Your task to perform on an android device: Go to sound settings Image 0: 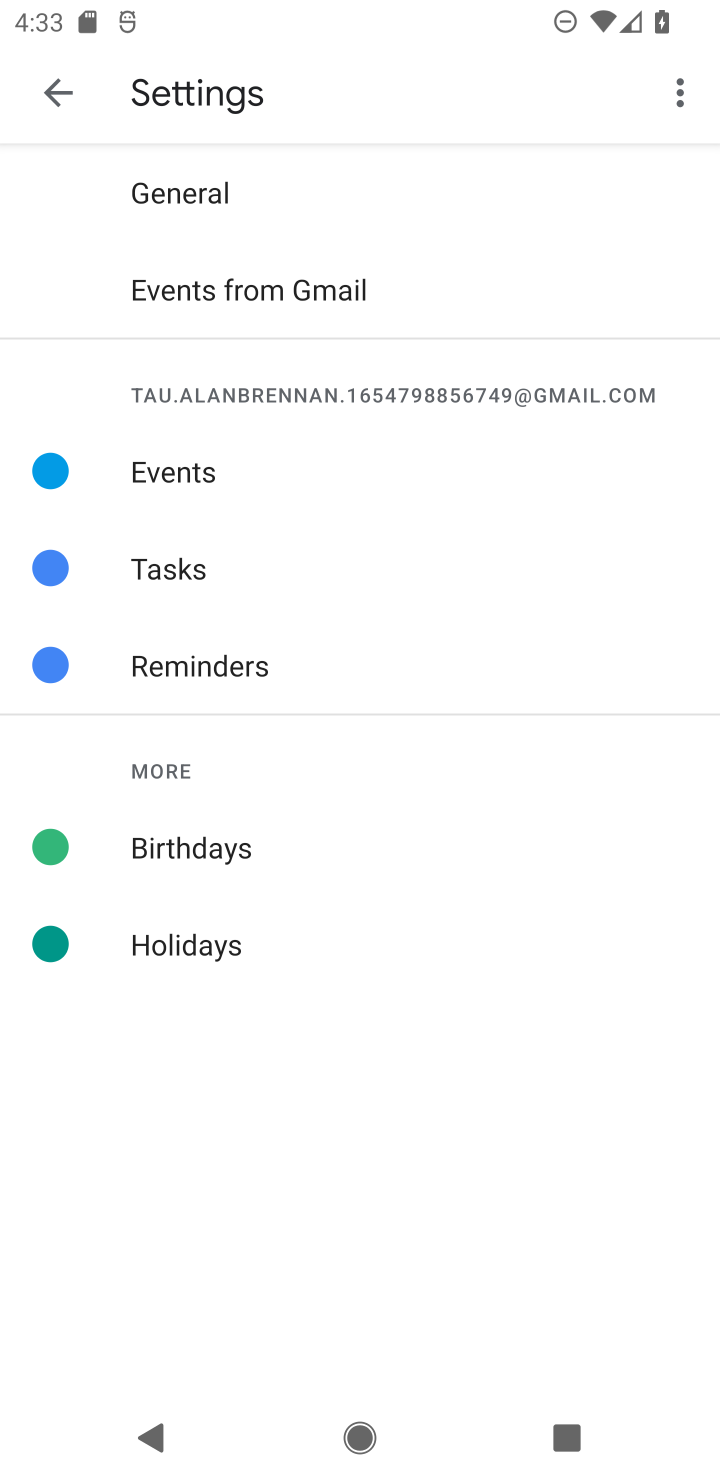
Step 0: press home button
Your task to perform on an android device: Go to sound settings Image 1: 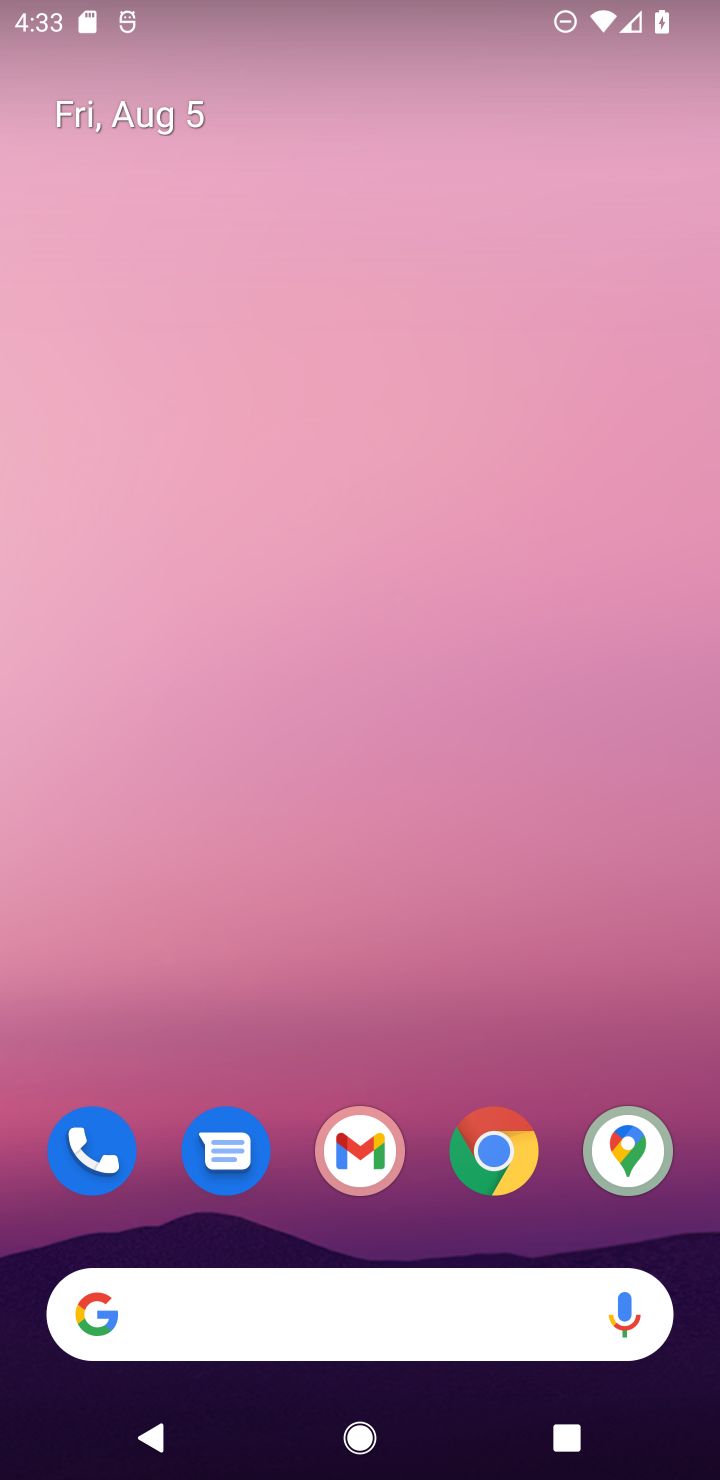
Step 1: drag from (317, 884) to (296, 20)
Your task to perform on an android device: Go to sound settings Image 2: 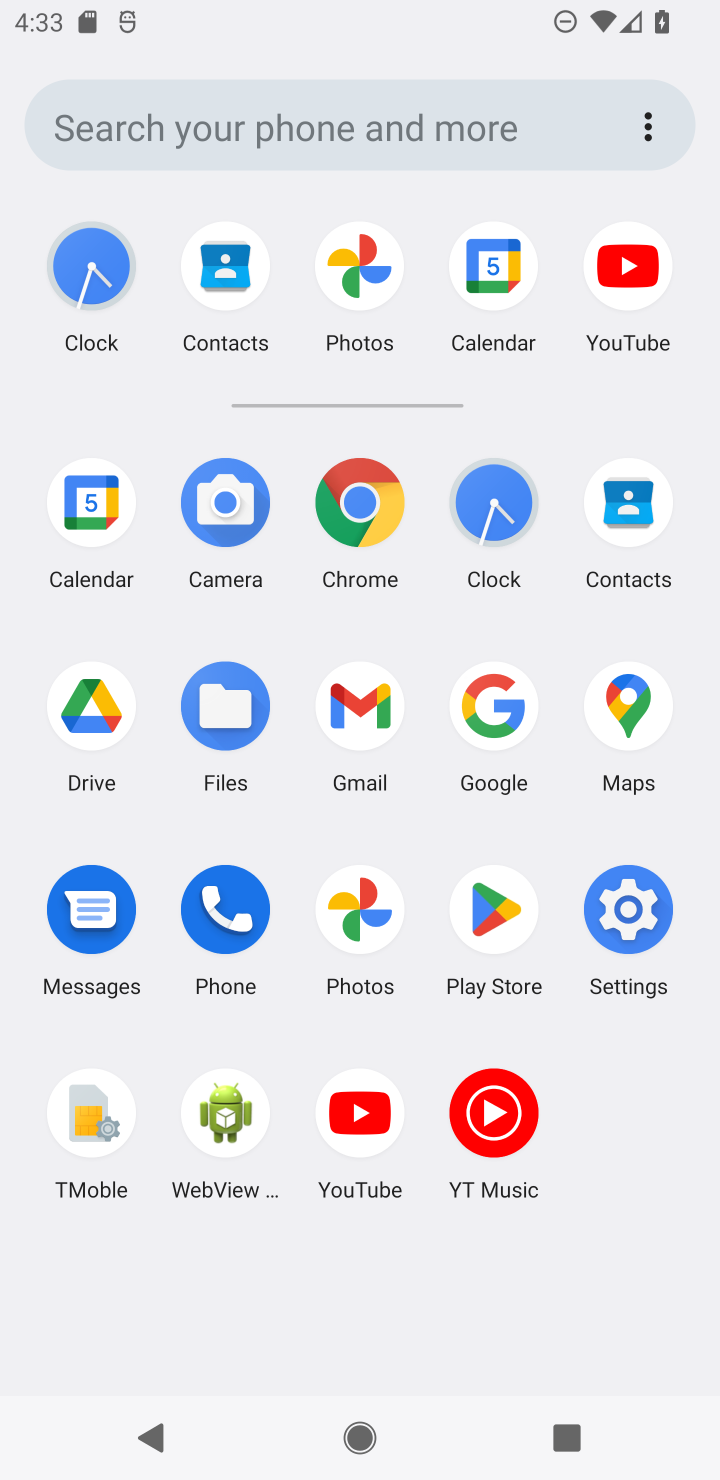
Step 2: click (636, 907)
Your task to perform on an android device: Go to sound settings Image 3: 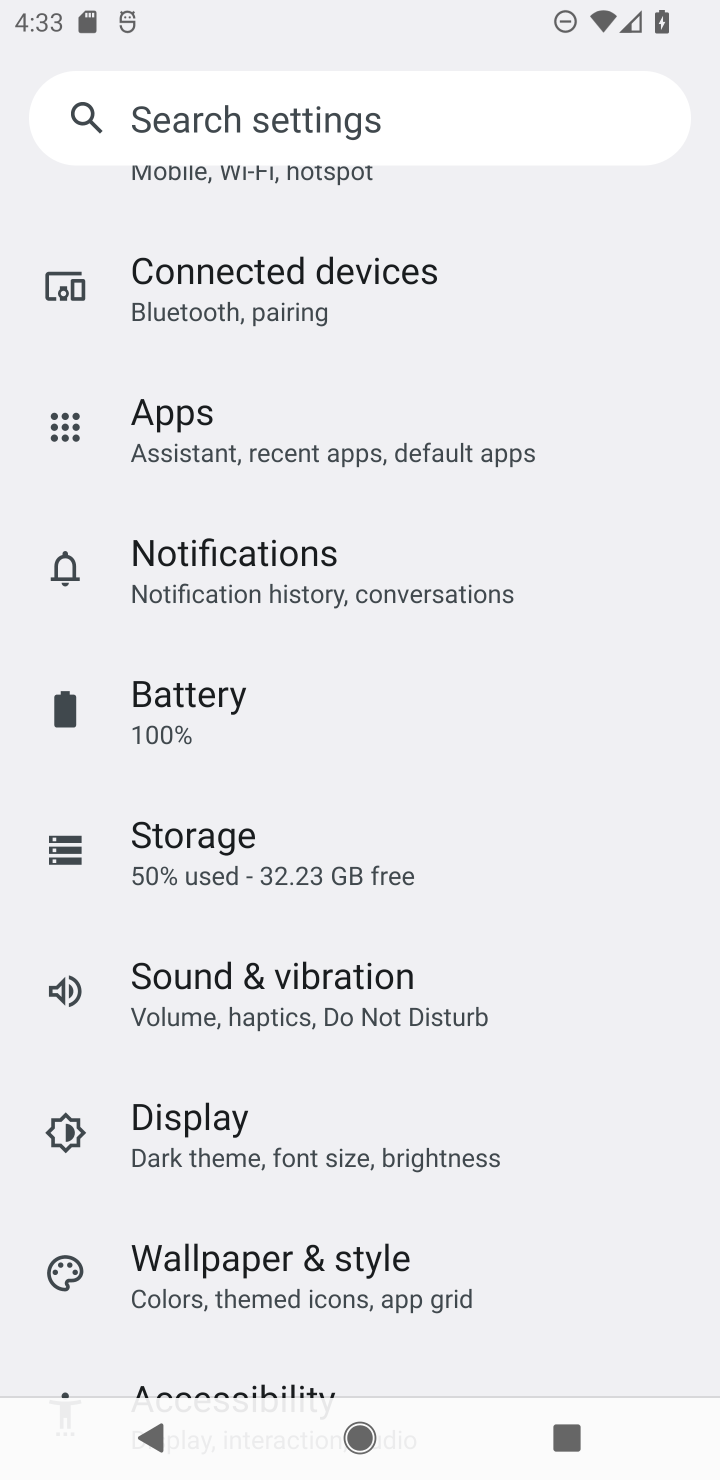
Step 3: drag from (301, 1030) to (301, 618)
Your task to perform on an android device: Go to sound settings Image 4: 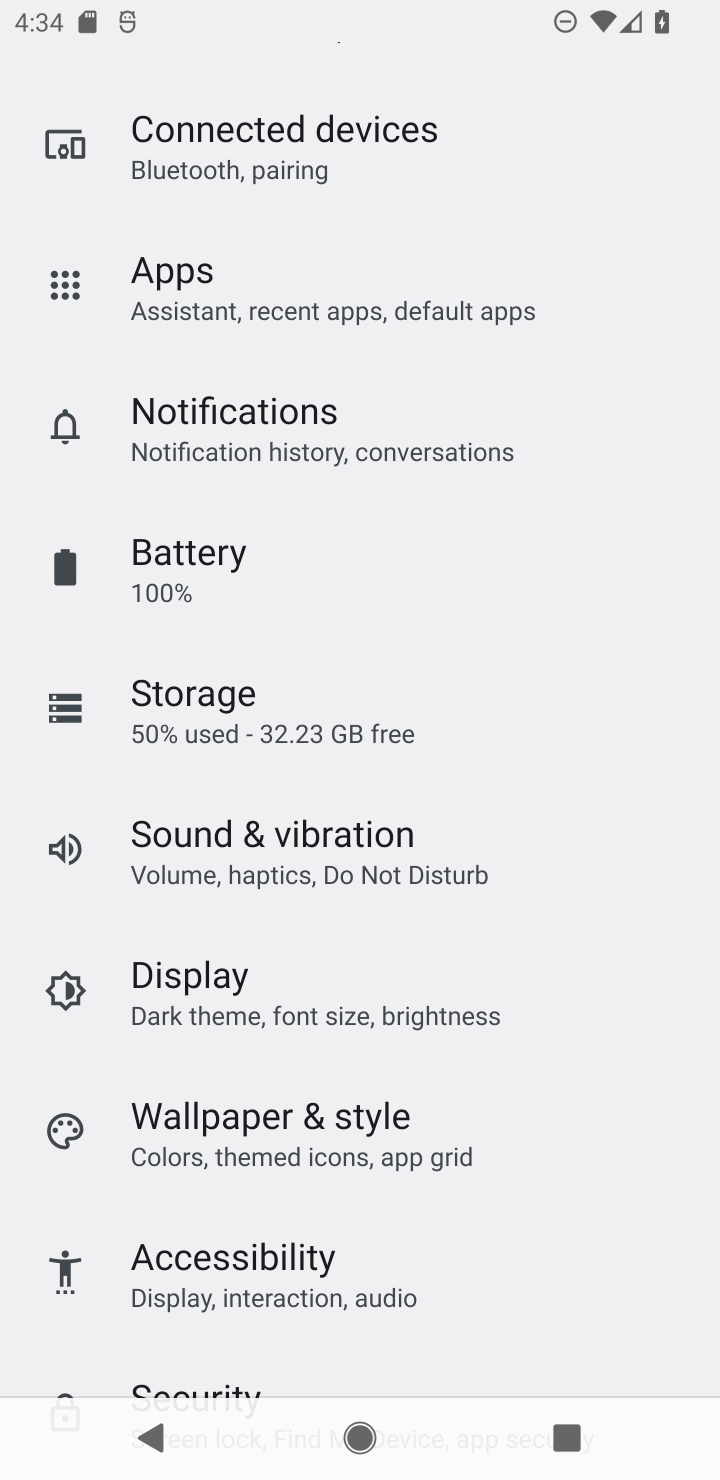
Step 4: click (285, 809)
Your task to perform on an android device: Go to sound settings Image 5: 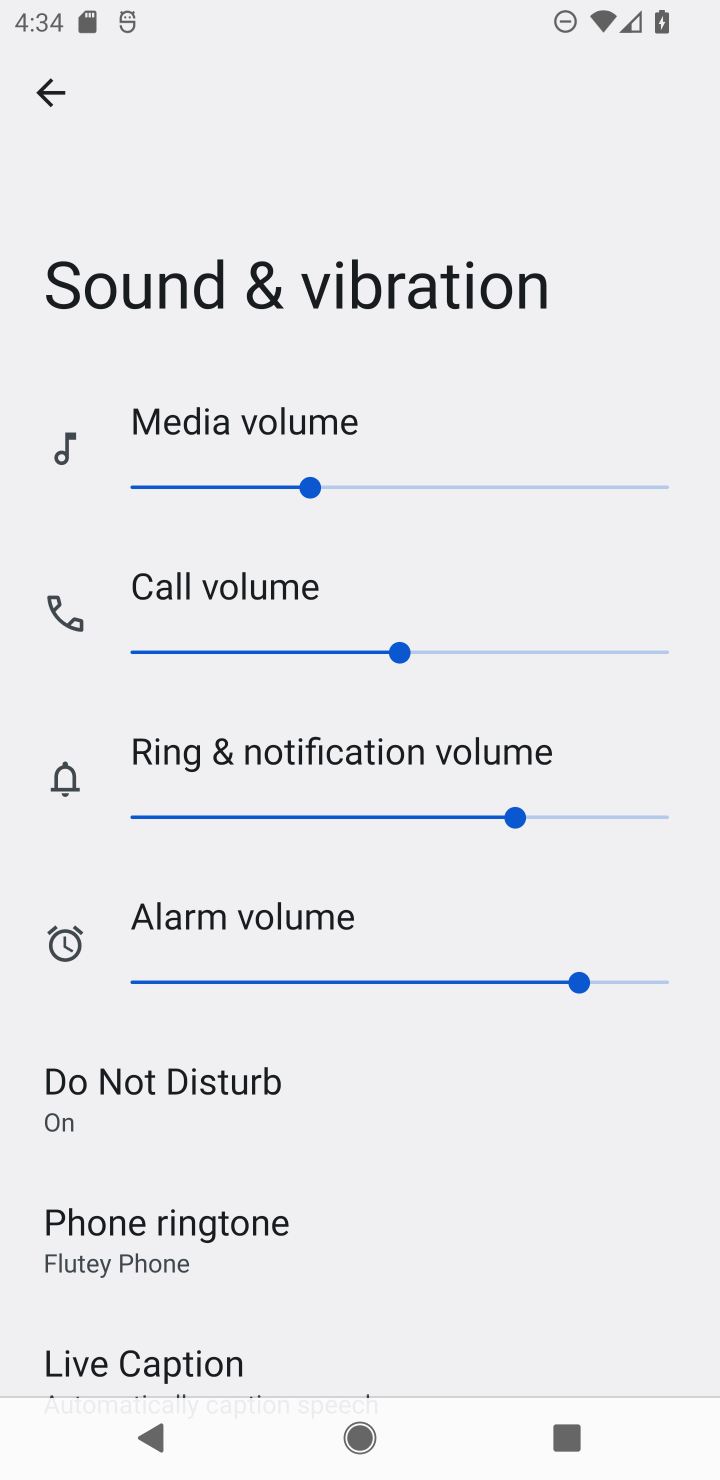
Step 5: task complete